Your task to perform on an android device: star an email in the gmail app Image 0: 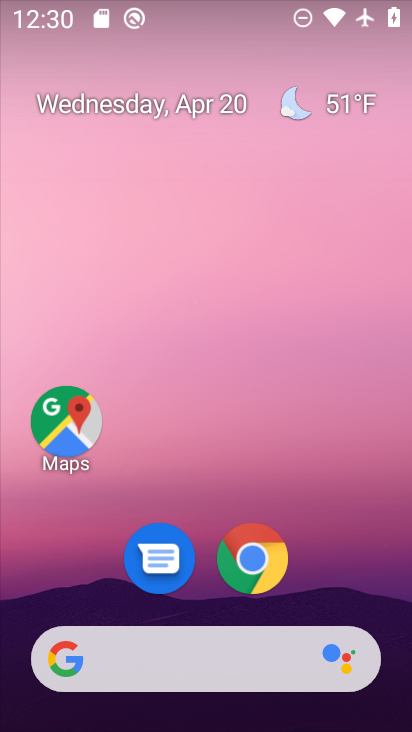
Step 0: drag from (389, 609) to (293, 201)
Your task to perform on an android device: star an email in the gmail app Image 1: 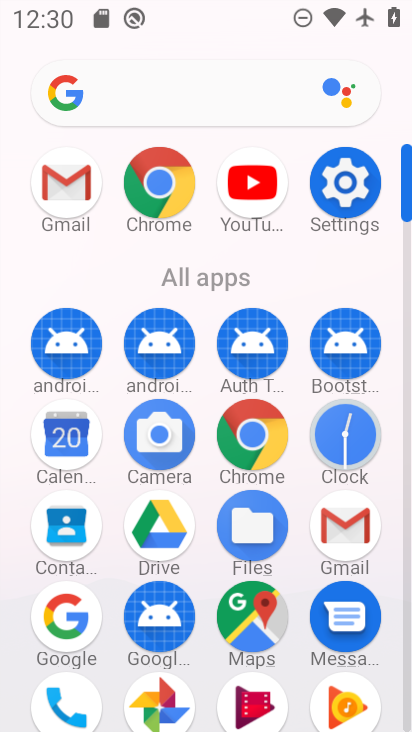
Step 1: click (407, 706)
Your task to perform on an android device: star an email in the gmail app Image 2: 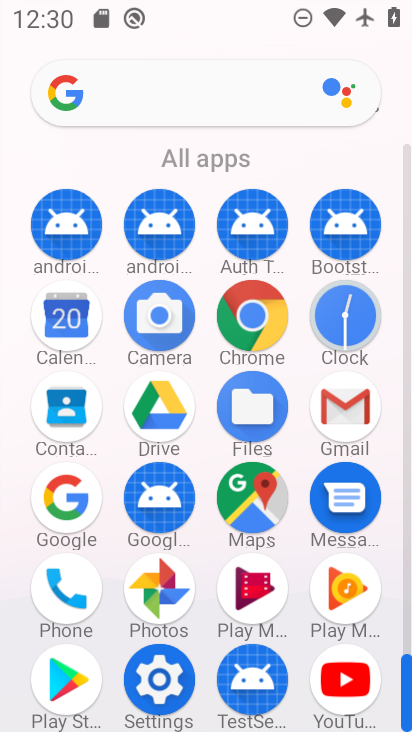
Step 2: click (343, 405)
Your task to perform on an android device: star an email in the gmail app Image 3: 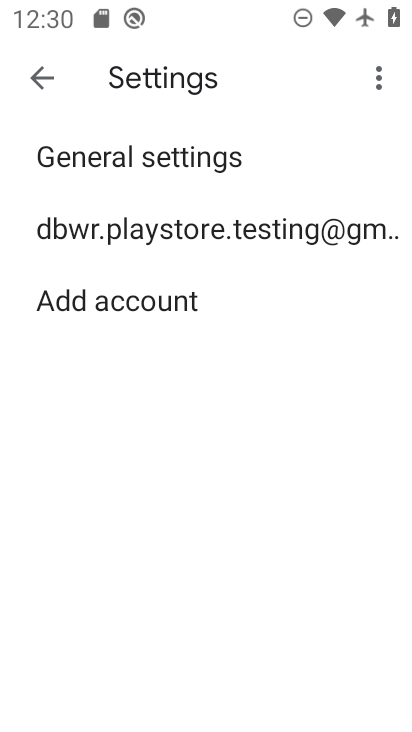
Step 3: press back button
Your task to perform on an android device: star an email in the gmail app Image 4: 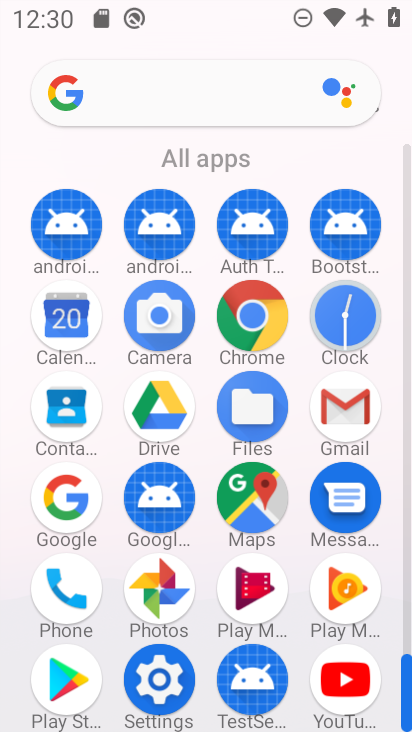
Step 4: click (342, 404)
Your task to perform on an android device: star an email in the gmail app Image 5: 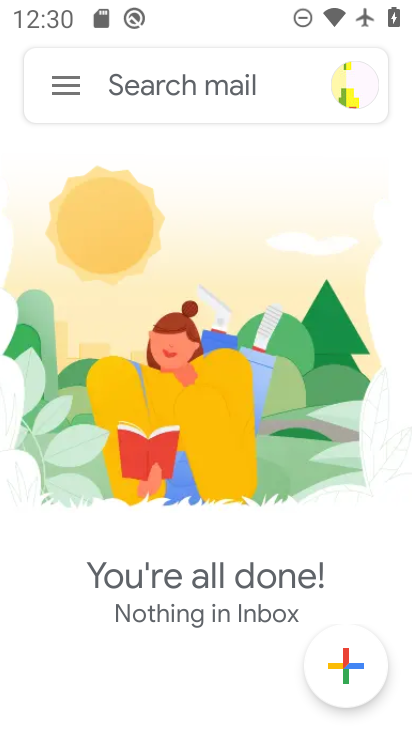
Step 5: click (60, 75)
Your task to perform on an android device: star an email in the gmail app Image 6: 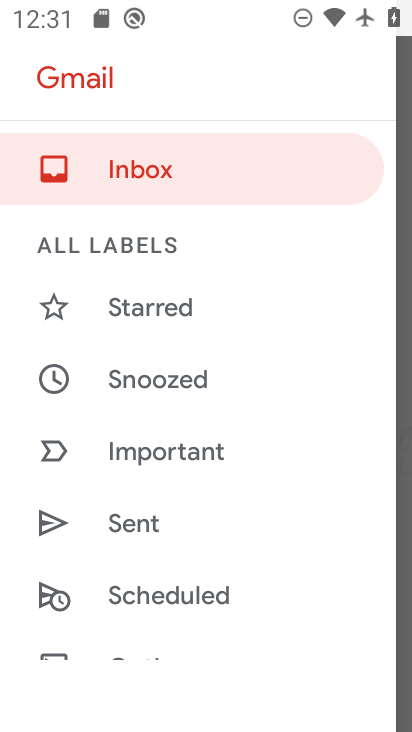
Step 6: click (162, 155)
Your task to perform on an android device: star an email in the gmail app Image 7: 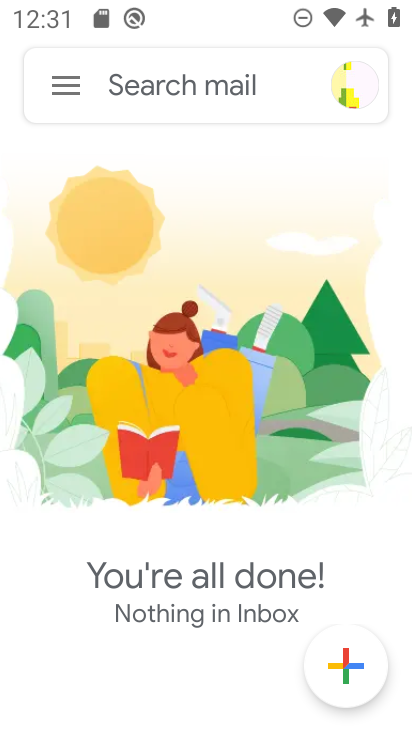
Step 7: task complete